Your task to perform on an android device: turn on data saver in the chrome app Image 0: 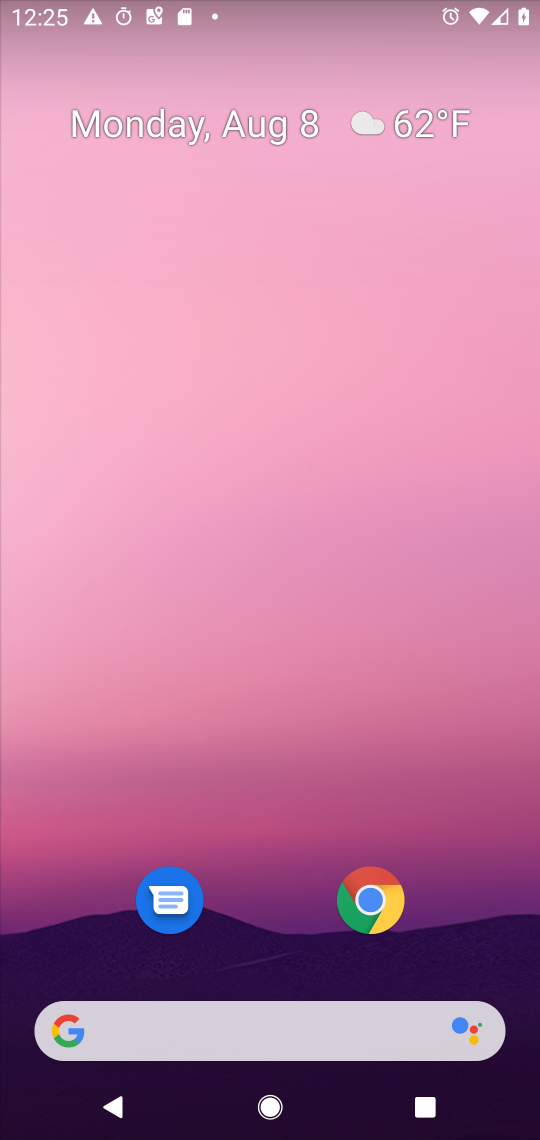
Step 0: press home button
Your task to perform on an android device: turn on data saver in the chrome app Image 1: 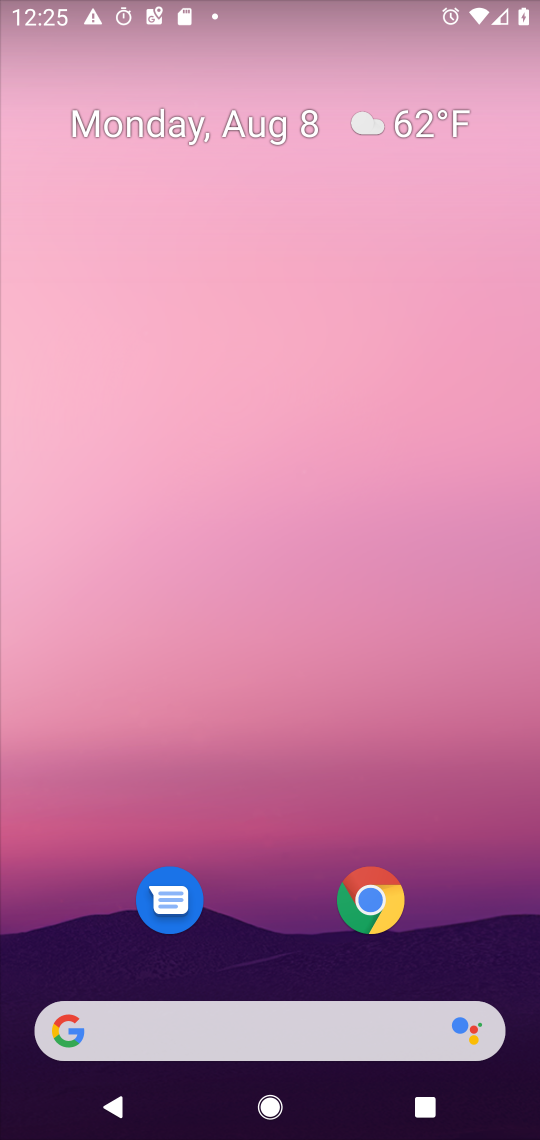
Step 1: press home button
Your task to perform on an android device: turn on data saver in the chrome app Image 2: 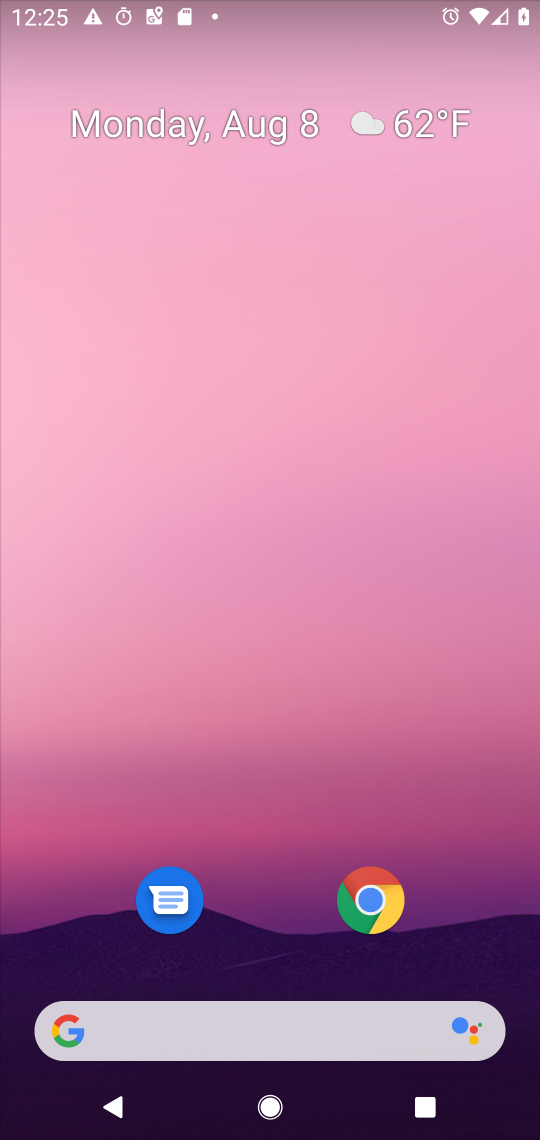
Step 2: click (368, 894)
Your task to perform on an android device: turn on data saver in the chrome app Image 3: 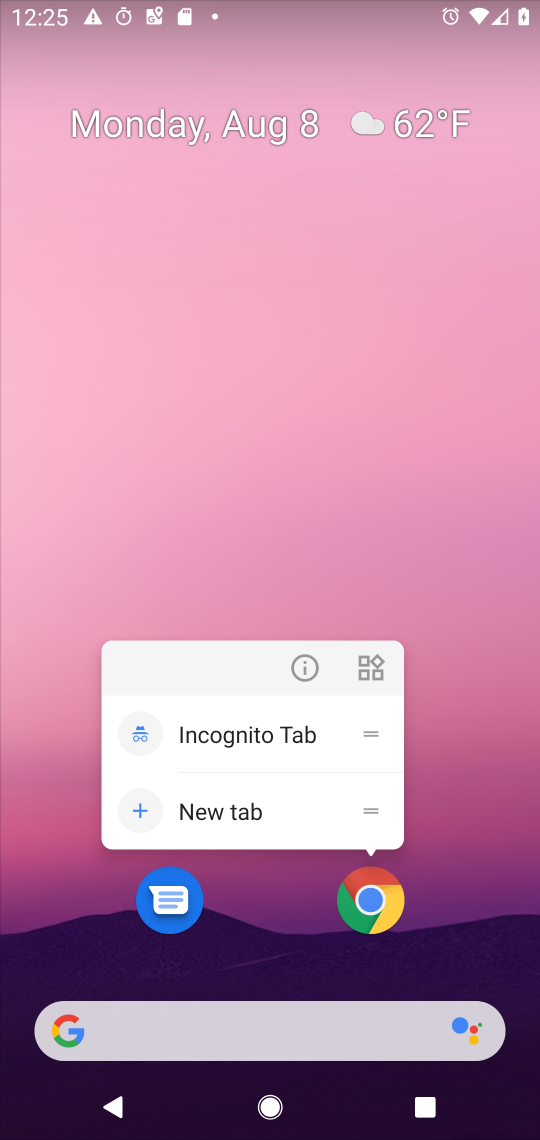
Step 3: click (368, 894)
Your task to perform on an android device: turn on data saver in the chrome app Image 4: 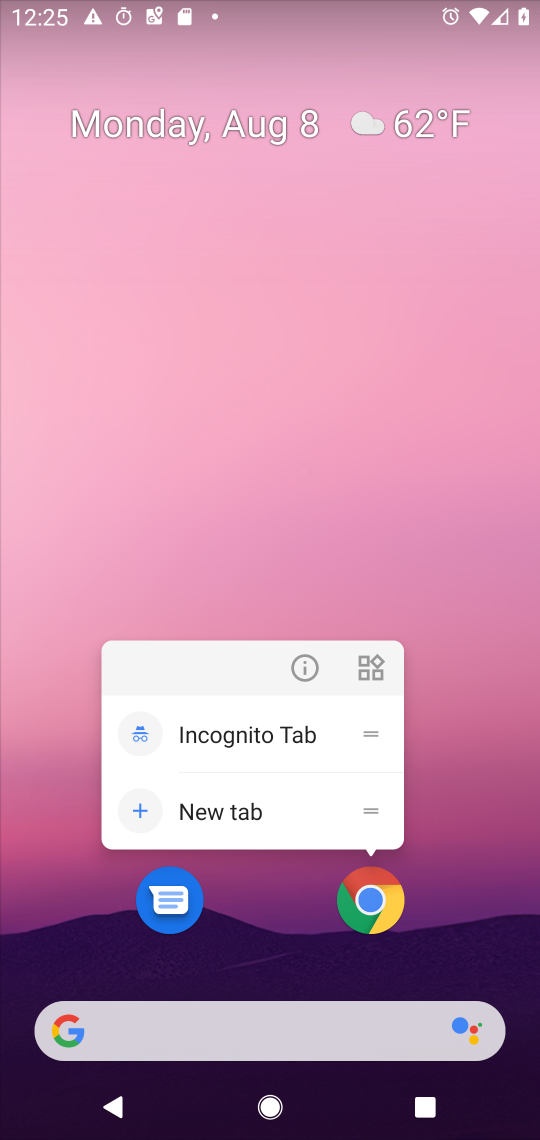
Step 4: click (368, 892)
Your task to perform on an android device: turn on data saver in the chrome app Image 5: 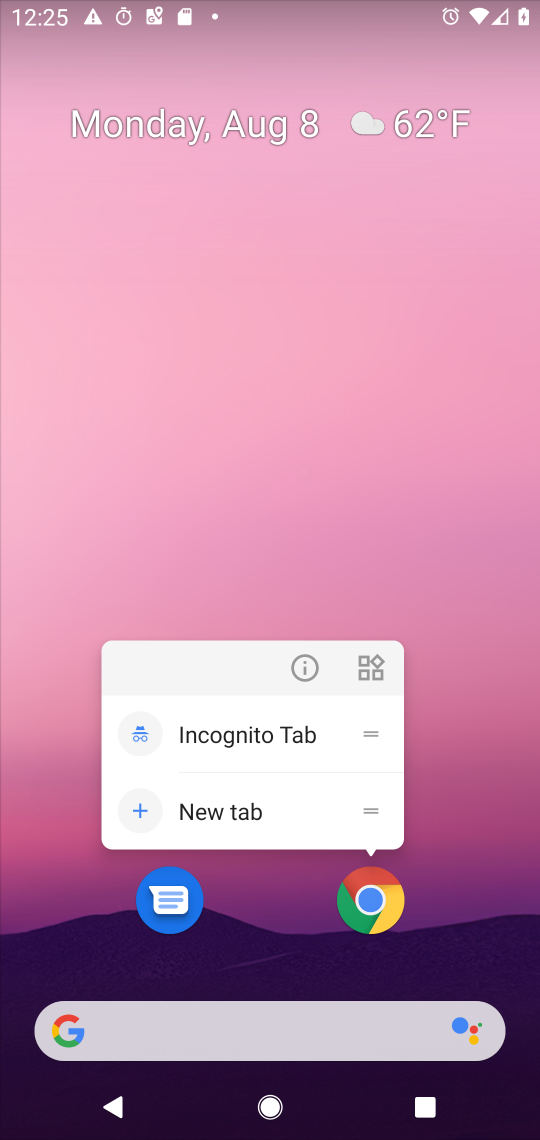
Step 5: click (368, 892)
Your task to perform on an android device: turn on data saver in the chrome app Image 6: 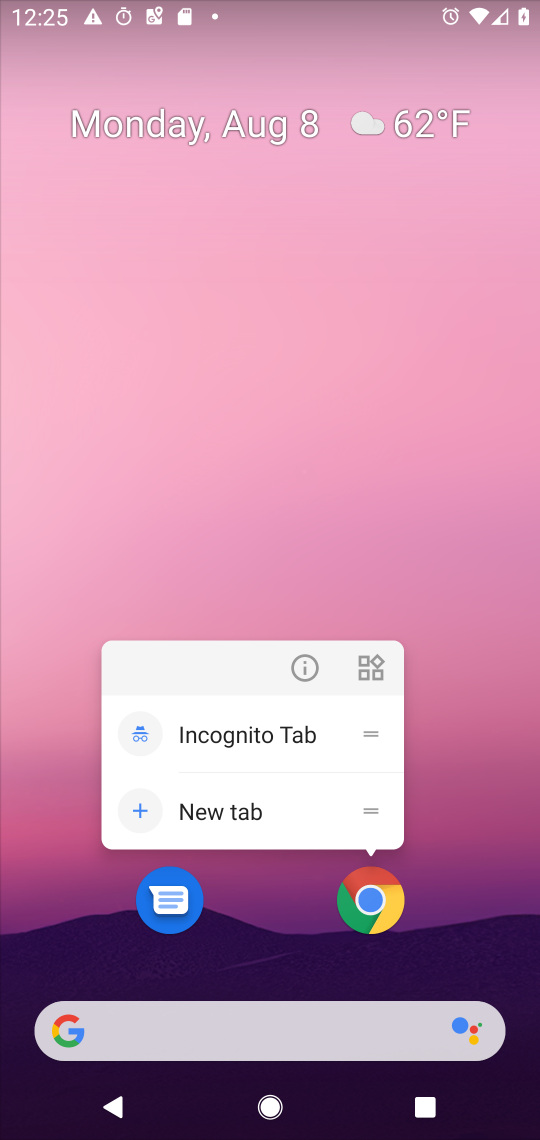
Step 6: click (430, 894)
Your task to perform on an android device: turn on data saver in the chrome app Image 7: 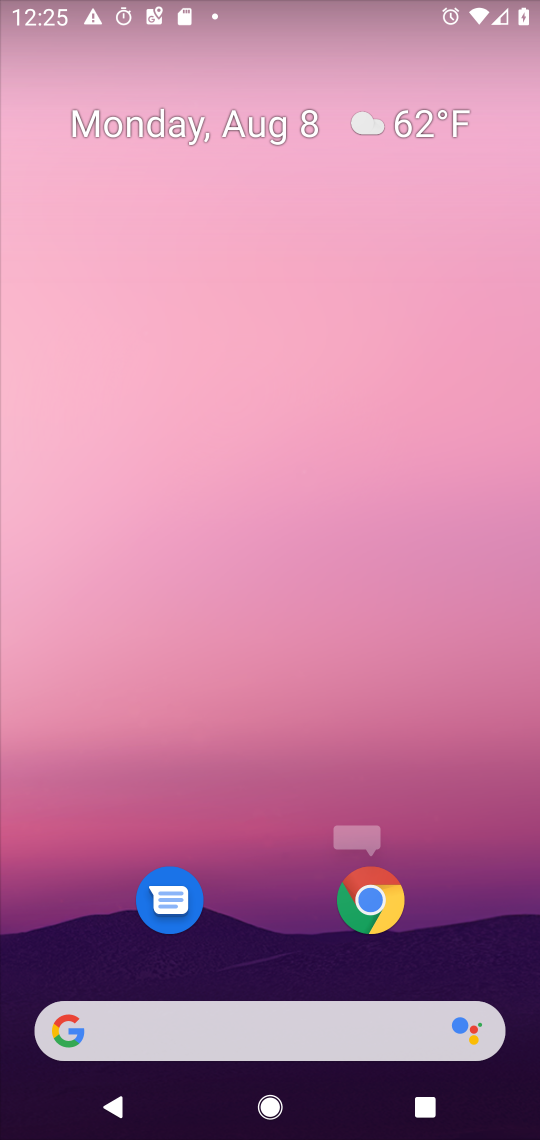
Step 7: drag from (449, 975) to (521, 65)
Your task to perform on an android device: turn on data saver in the chrome app Image 8: 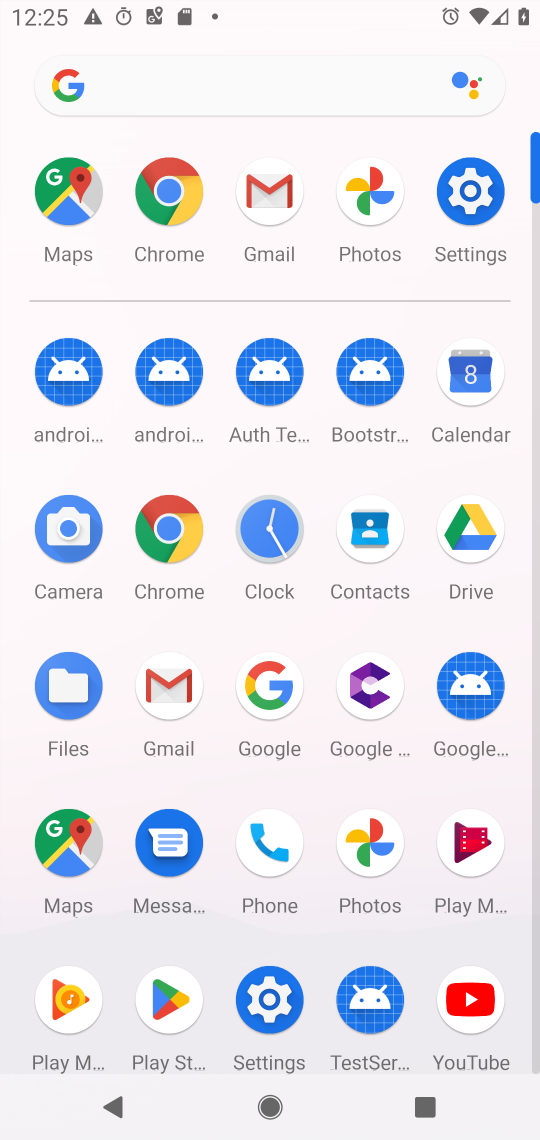
Step 8: click (164, 516)
Your task to perform on an android device: turn on data saver in the chrome app Image 9: 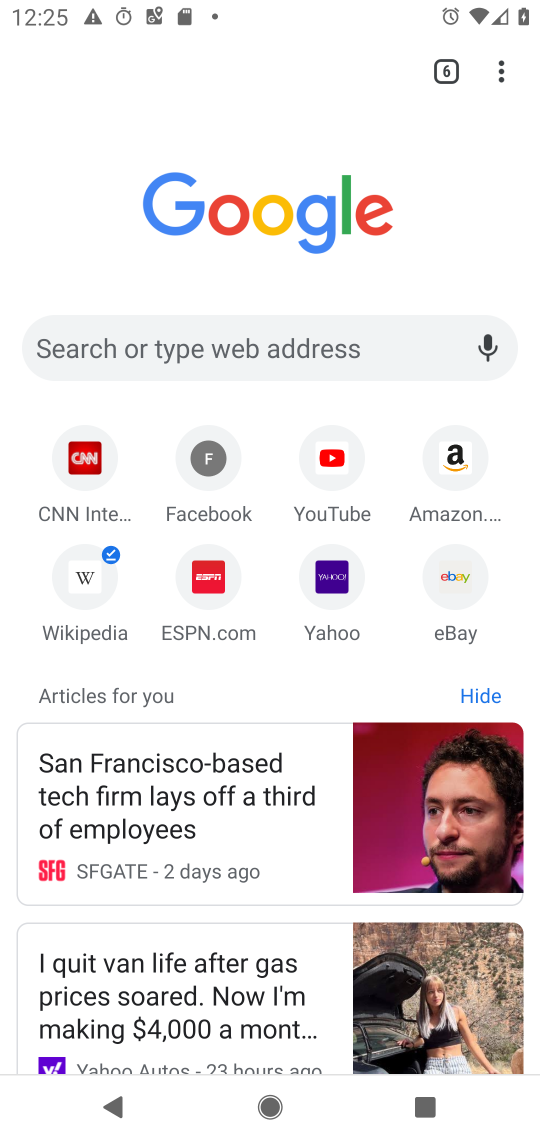
Step 9: click (506, 63)
Your task to perform on an android device: turn on data saver in the chrome app Image 10: 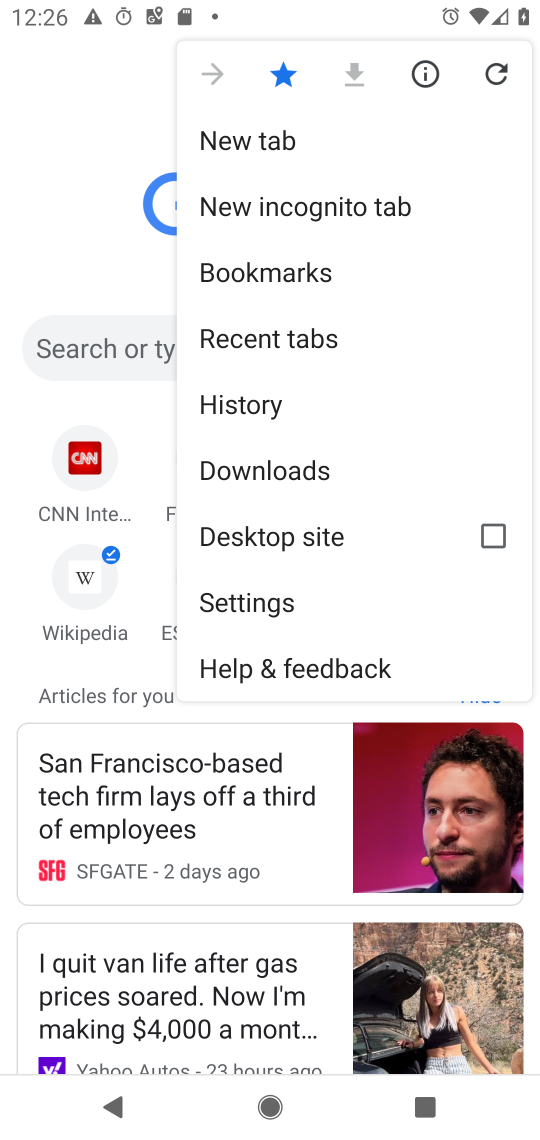
Step 10: click (304, 595)
Your task to perform on an android device: turn on data saver in the chrome app Image 11: 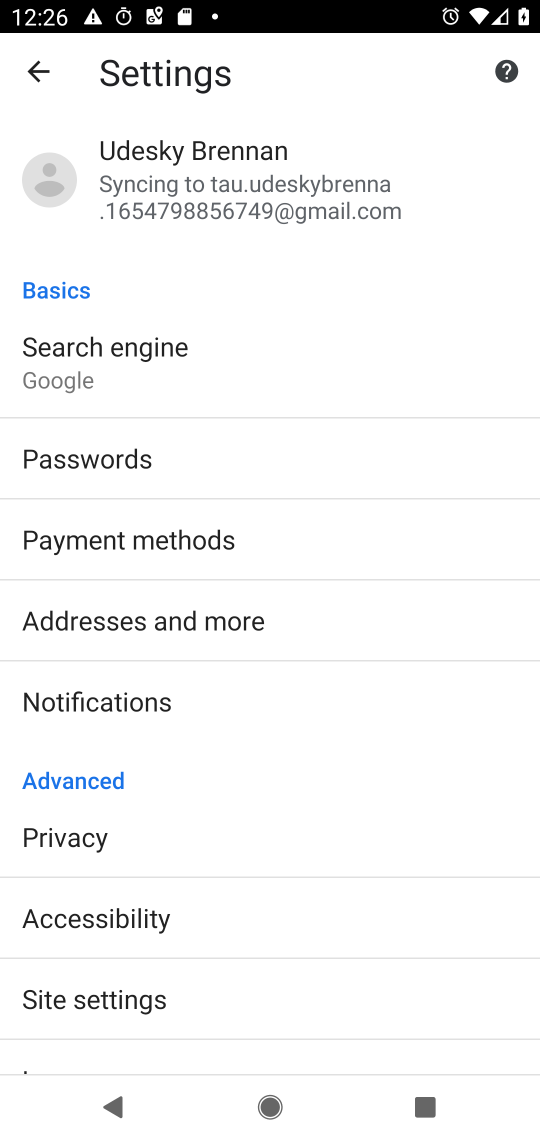
Step 11: drag from (193, 996) to (290, 361)
Your task to perform on an android device: turn on data saver in the chrome app Image 12: 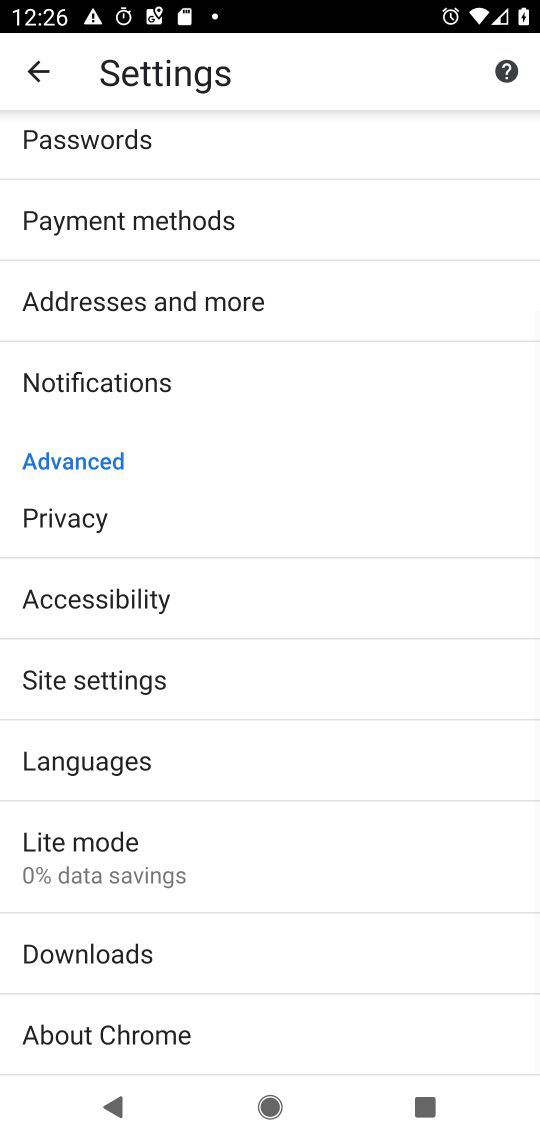
Step 12: click (185, 842)
Your task to perform on an android device: turn on data saver in the chrome app Image 13: 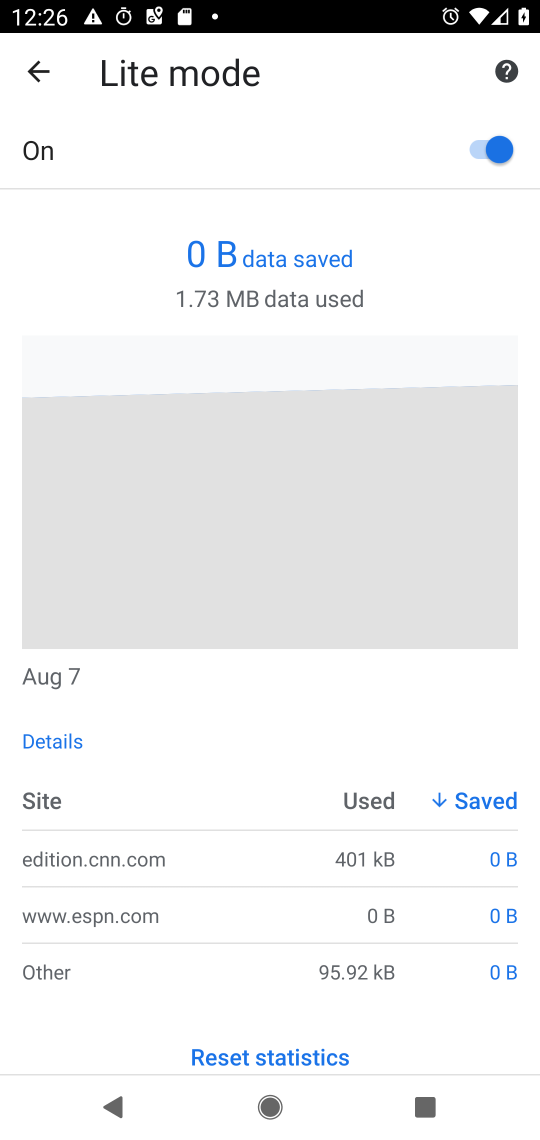
Step 13: task complete